Your task to perform on an android device: open wifi settings Image 0: 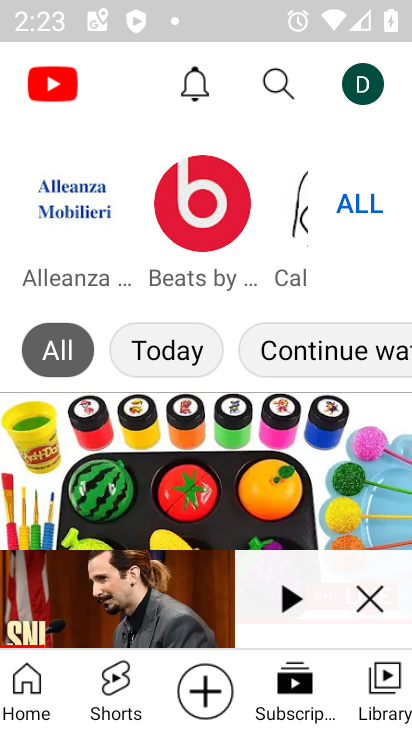
Step 0: press home button
Your task to perform on an android device: open wifi settings Image 1: 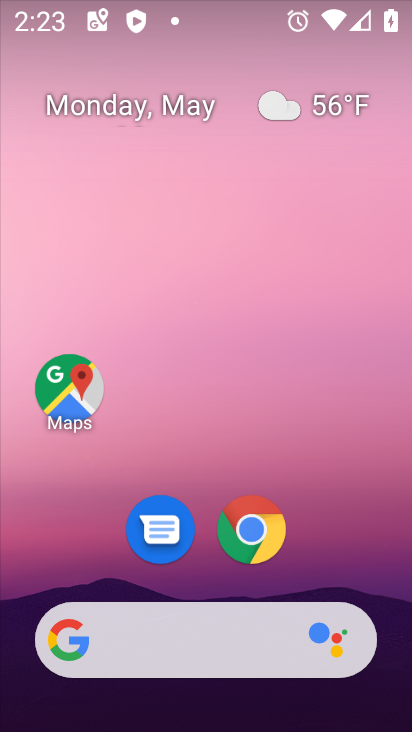
Step 1: drag from (206, 570) to (222, 62)
Your task to perform on an android device: open wifi settings Image 2: 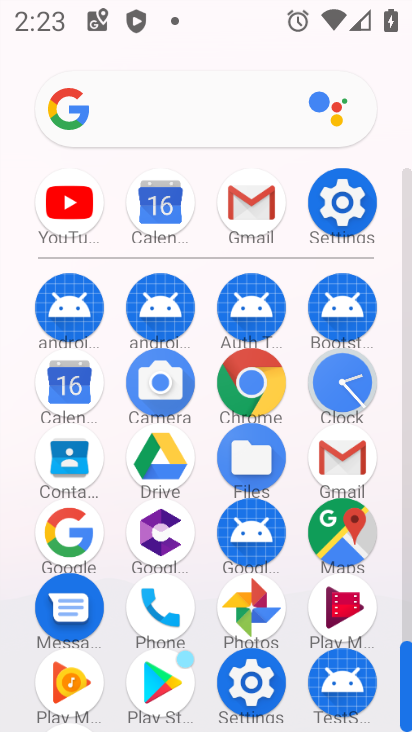
Step 2: click (341, 204)
Your task to perform on an android device: open wifi settings Image 3: 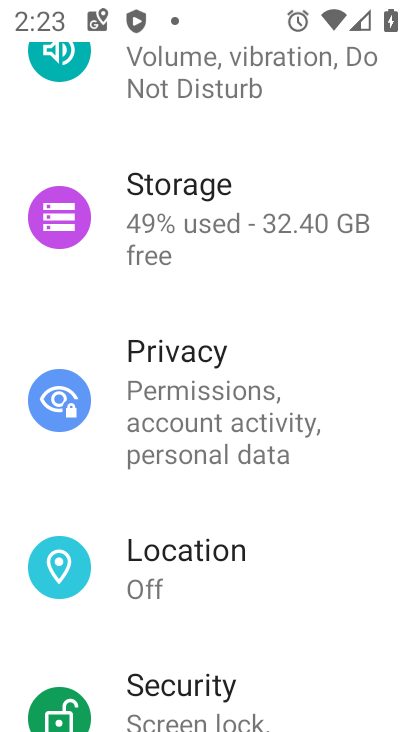
Step 3: drag from (95, 292) to (156, 414)
Your task to perform on an android device: open wifi settings Image 4: 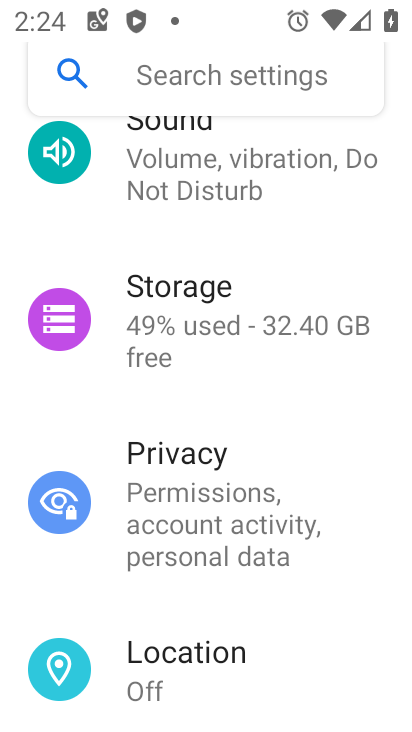
Step 4: drag from (271, 206) to (316, 356)
Your task to perform on an android device: open wifi settings Image 5: 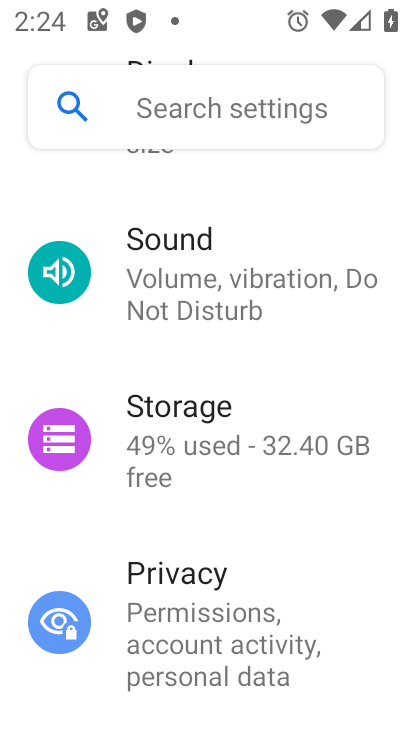
Step 5: drag from (312, 240) to (347, 367)
Your task to perform on an android device: open wifi settings Image 6: 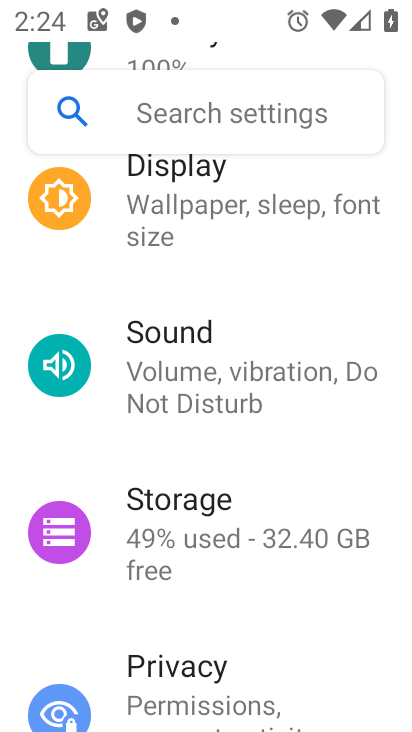
Step 6: drag from (314, 232) to (340, 357)
Your task to perform on an android device: open wifi settings Image 7: 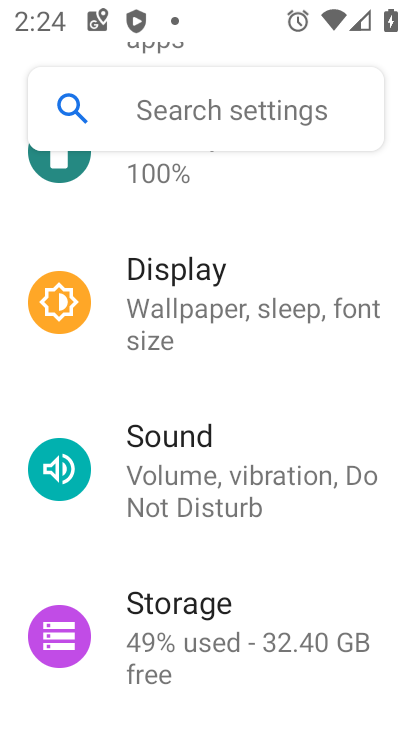
Step 7: drag from (294, 231) to (332, 374)
Your task to perform on an android device: open wifi settings Image 8: 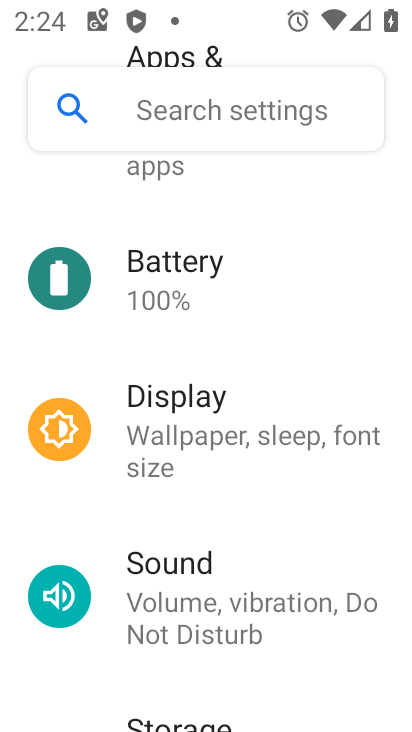
Step 8: drag from (290, 237) to (329, 351)
Your task to perform on an android device: open wifi settings Image 9: 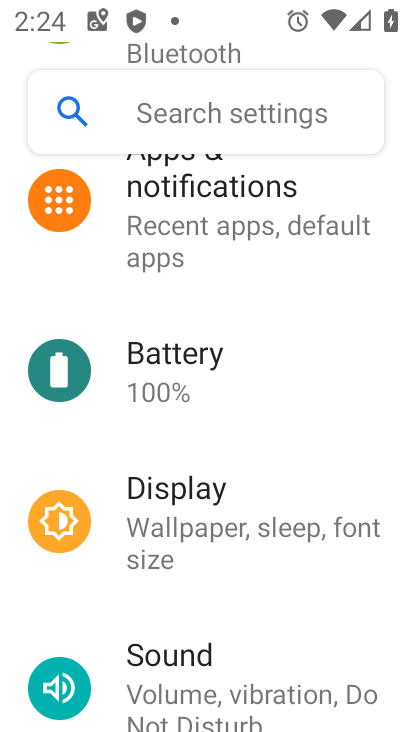
Step 9: drag from (284, 245) to (317, 381)
Your task to perform on an android device: open wifi settings Image 10: 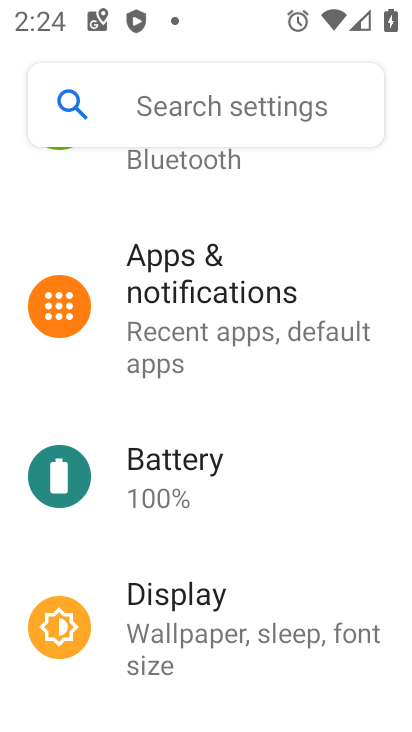
Step 10: drag from (266, 266) to (284, 404)
Your task to perform on an android device: open wifi settings Image 11: 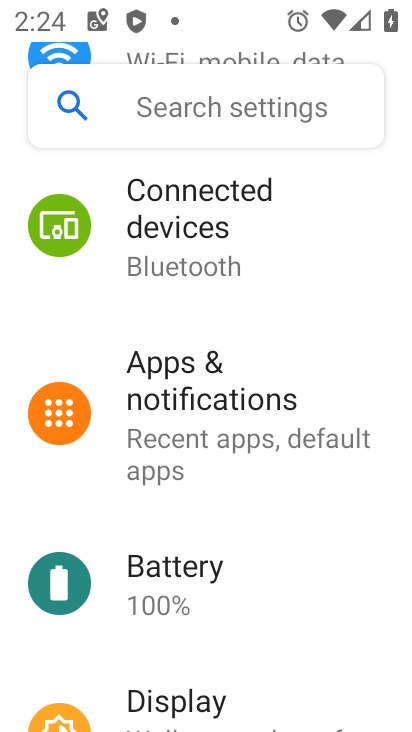
Step 11: drag from (270, 272) to (289, 388)
Your task to perform on an android device: open wifi settings Image 12: 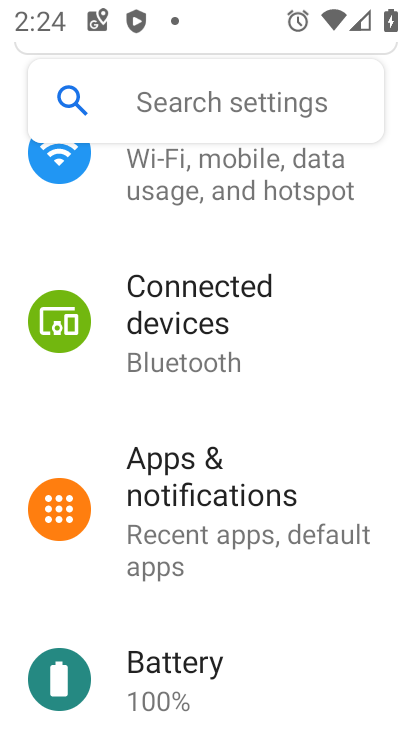
Step 12: click (270, 186)
Your task to perform on an android device: open wifi settings Image 13: 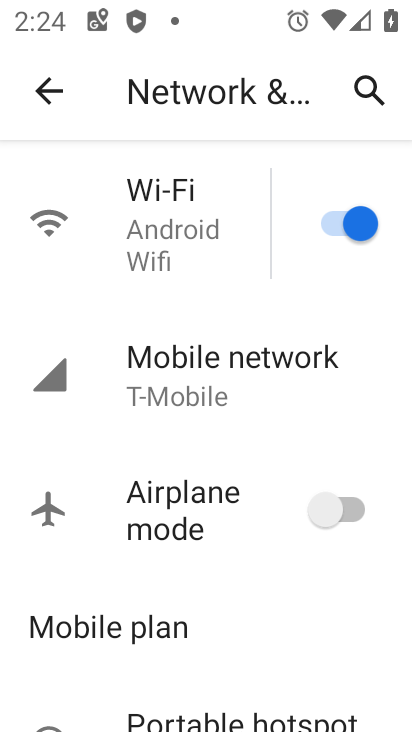
Step 13: click (94, 247)
Your task to perform on an android device: open wifi settings Image 14: 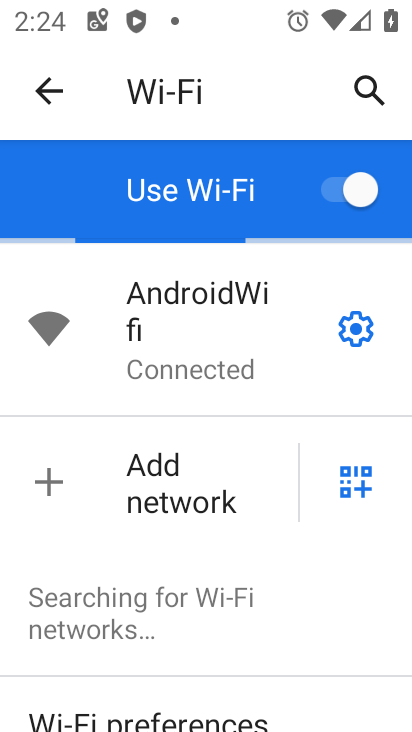
Step 14: task complete